Your task to perform on an android device: Search for Mexican restaurants on Maps Image 0: 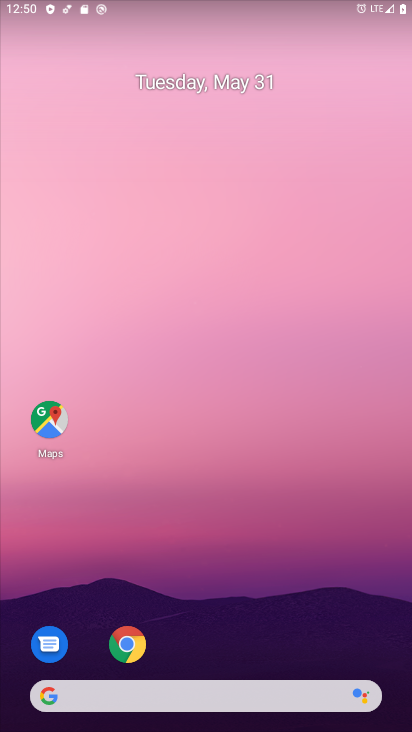
Step 0: click (41, 414)
Your task to perform on an android device: Search for Mexican restaurants on Maps Image 1: 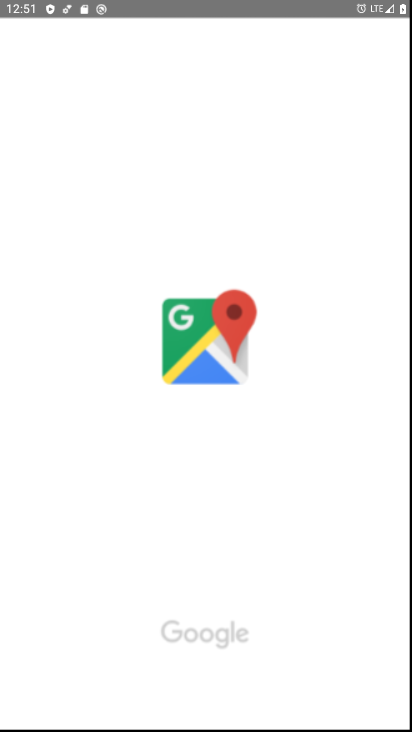
Step 1: task complete